Your task to perform on an android device: What's on my calendar tomorrow? Image 0: 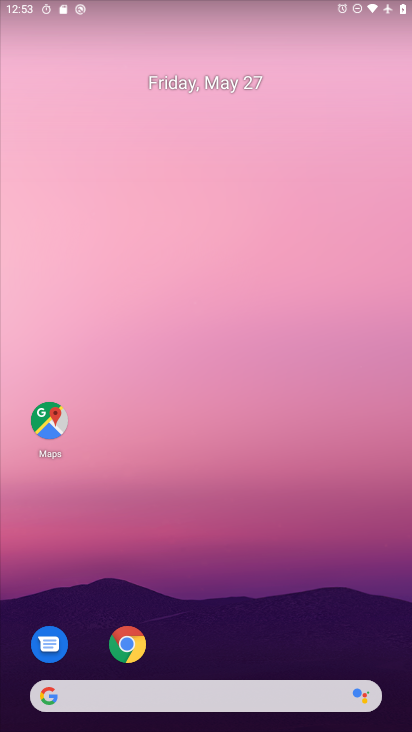
Step 0: drag from (192, 654) to (209, 218)
Your task to perform on an android device: What's on my calendar tomorrow? Image 1: 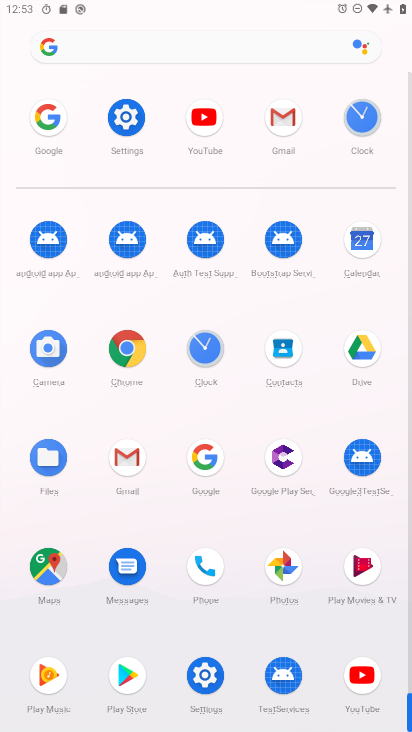
Step 1: click (367, 238)
Your task to perform on an android device: What's on my calendar tomorrow? Image 2: 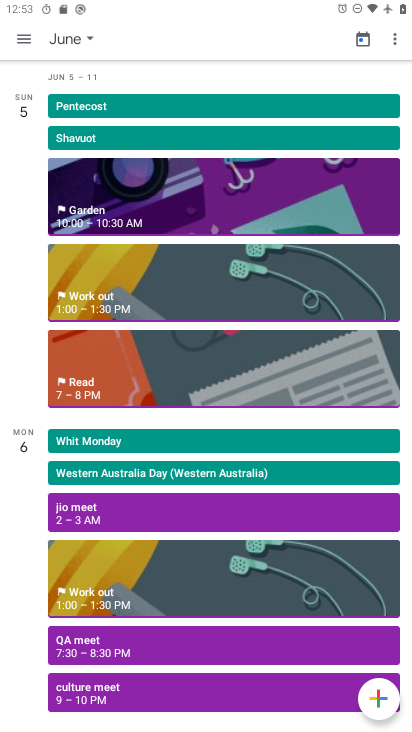
Step 2: click (87, 41)
Your task to perform on an android device: What's on my calendar tomorrow? Image 3: 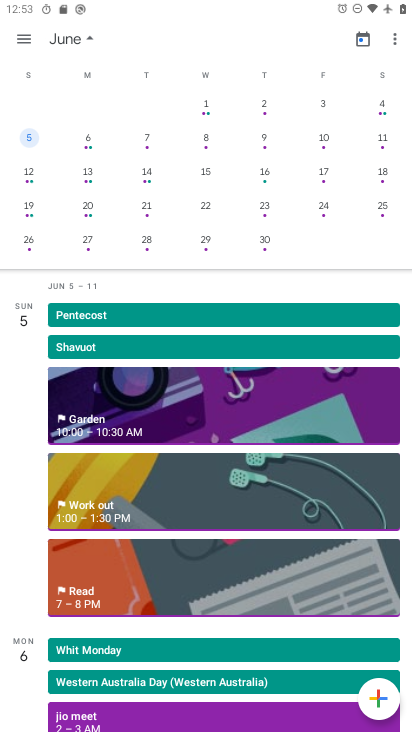
Step 3: drag from (102, 166) to (331, 164)
Your task to perform on an android device: What's on my calendar tomorrow? Image 4: 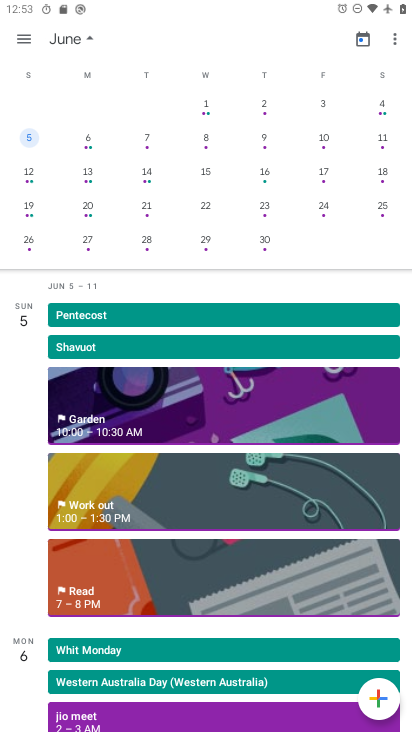
Step 4: drag from (60, 160) to (379, 154)
Your task to perform on an android device: What's on my calendar tomorrow? Image 5: 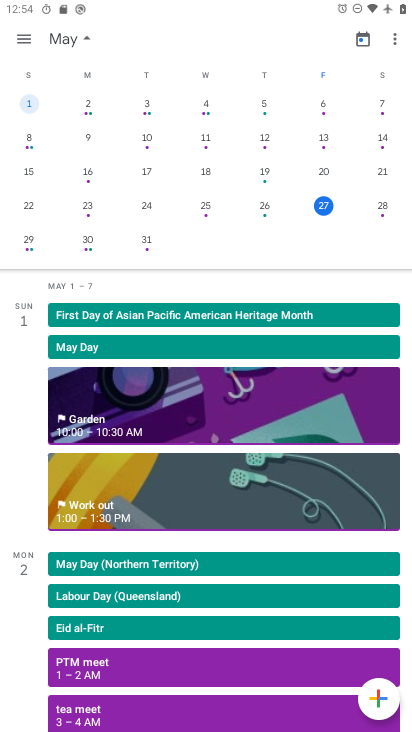
Step 5: click (321, 207)
Your task to perform on an android device: What's on my calendar tomorrow? Image 6: 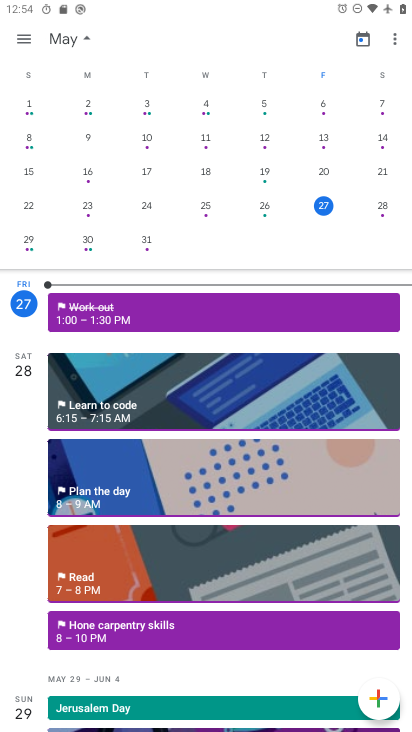
Step 6: task complete